Your task to perform on an android device: turn off data saver in the chrome app Image 0: 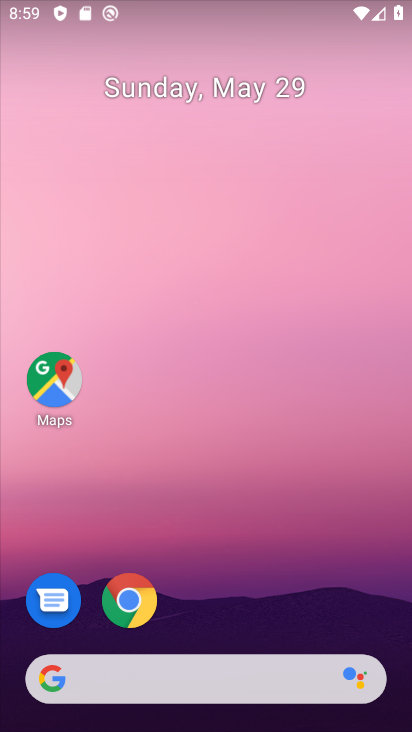
Step 0: click (125, 598)
Your task to perform on an android device: turn off data saver in the chrome app Image 1: 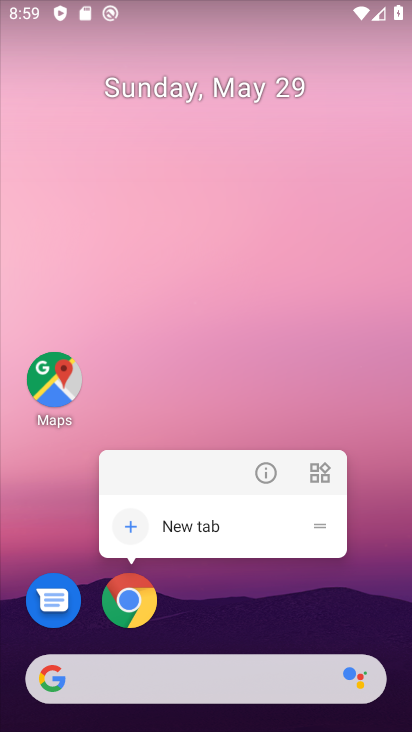
Step 1: click (125, 598)
Your task to perform on an android device: turn off data saver in the chrome app Image 2: 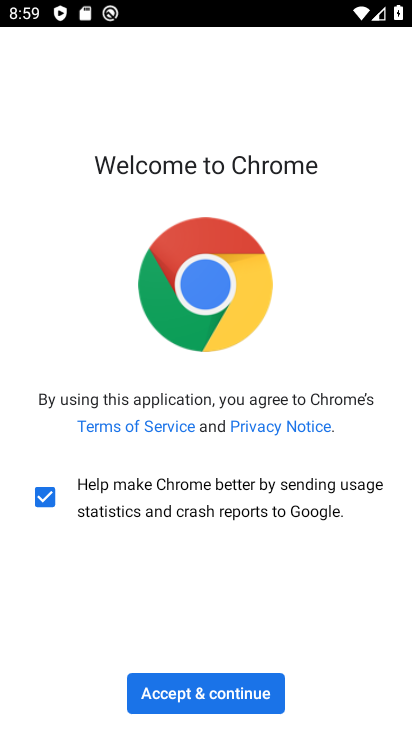
Step 2: click (200, 674)
Your task to perform on an android device: turn off data saver in the chrome app Image 3: 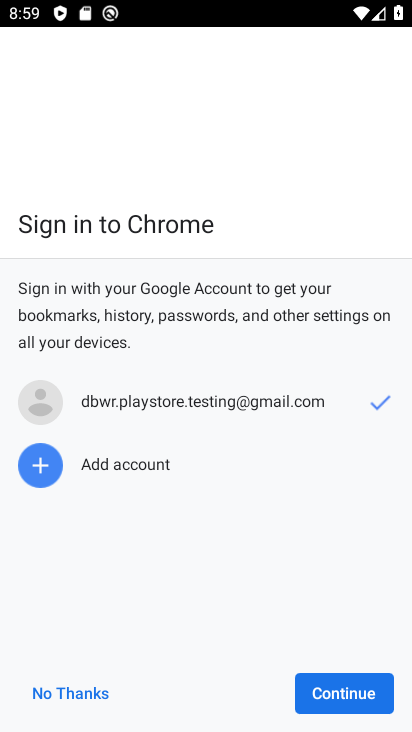
Step 3: click (350, 695)
Your task to perform on an android device: turn off data saver in the chrome app Image 4: 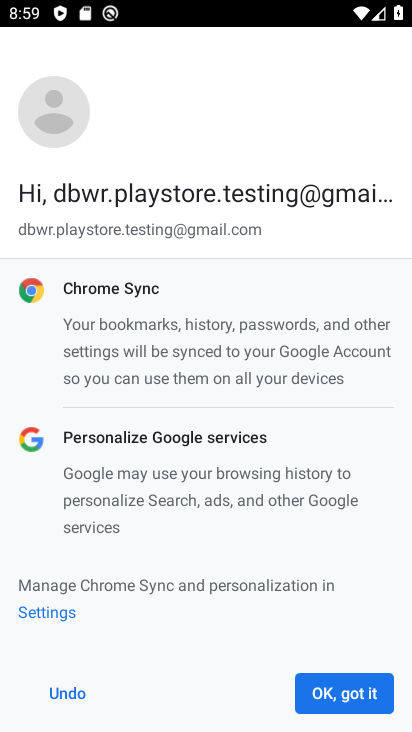
Step 4: click (350, 695)
Your task to perform on an android device: turn off data saver in the chrome app Image 5: 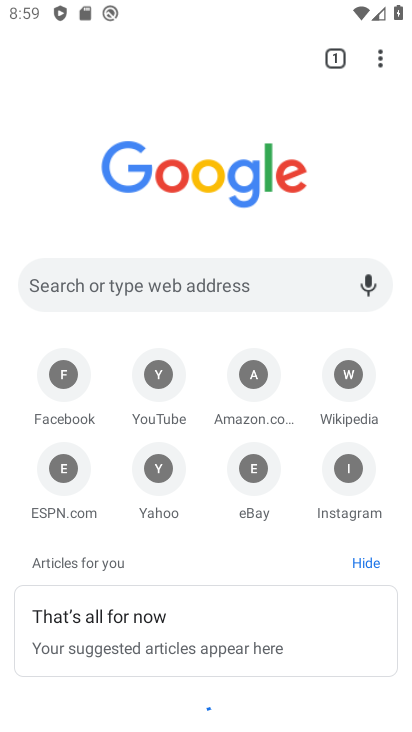
Step 5: drag from (382, 57) to (146, 497)
Your task to perform on an android device: turn off data saver in the chrome app Image 6: 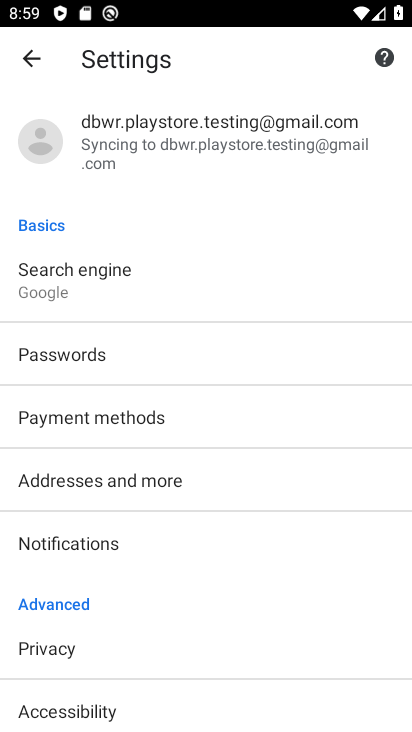
Step 6: drag from (183, 644) to (237, 188)
Your task to perform on an android device: turn off data saver in the chrome app Image 7: 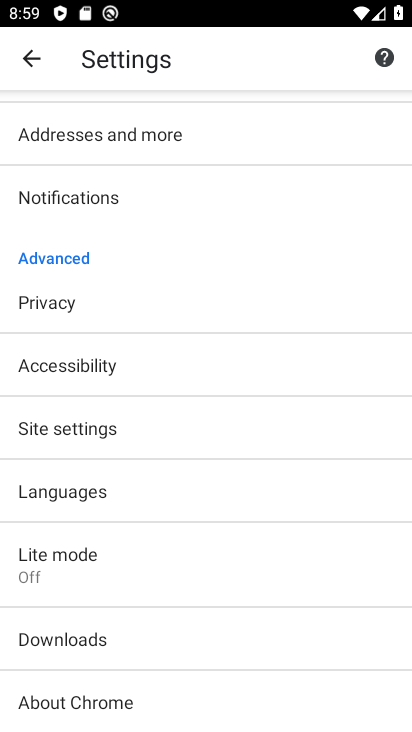
Step 7: click (50, 563)
Your task to perform on an android device: turn off data saver in the chrome app Image 8: 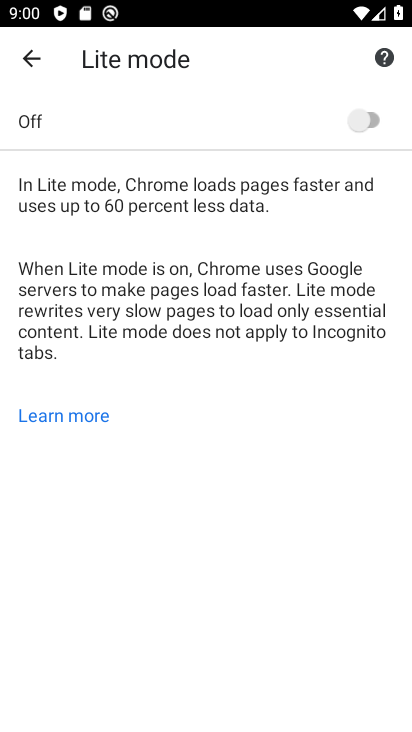
Step 8: task complete